Your task to perform on an android device: manage bookmarks in the chrome app Image 0: 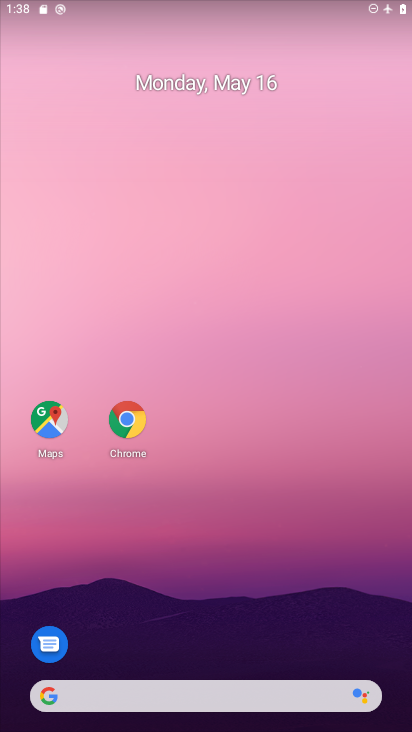
Step 0: drag from (200, 664) to (289, 60)
Your task to perform on an android device: manage bookmarks in the chrome app Image 1: 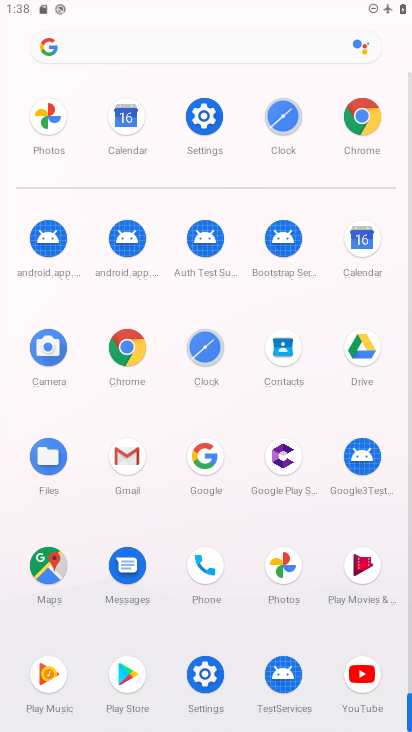
Step 1: click (124, 352)
Your task to perform on an android device: manage bookmarks in the chrome app Image 2: 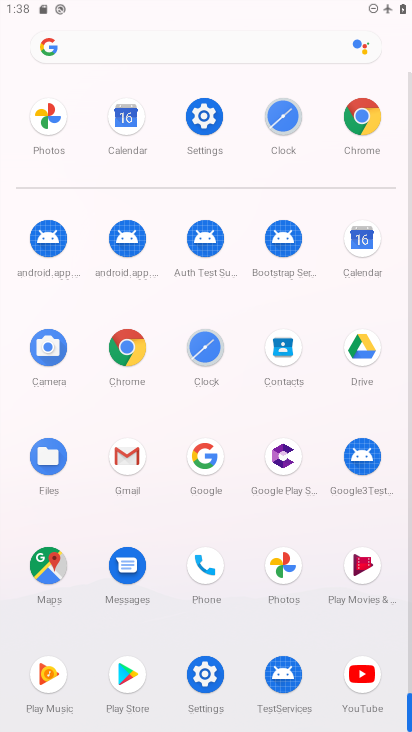
Step 2: click (124, 352)
Your task to perform on an android device: manage bookmarks in the chrome app Image 3: 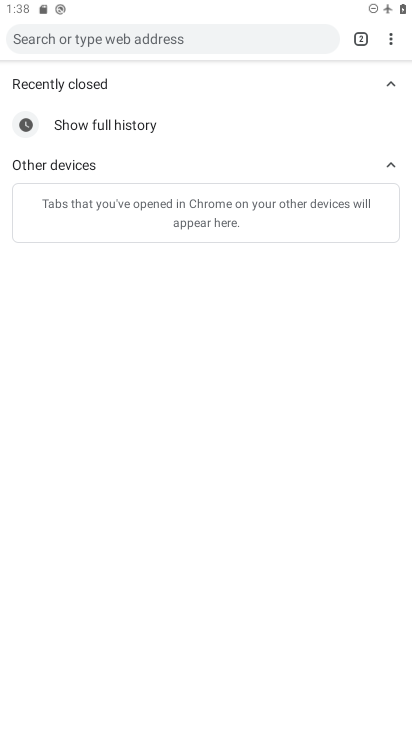
Step 3: drag from (237, 471) to (318, 112)
Your task to perform on an android device: manage bookmarks in the chrome app Image 4: 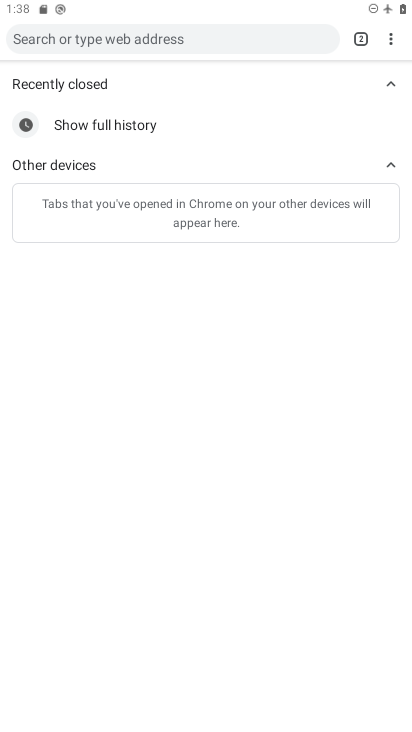
Step 4: click (398, 36)
Your task to perform on an android device: manage bookmarks in the chrome app Image 5: 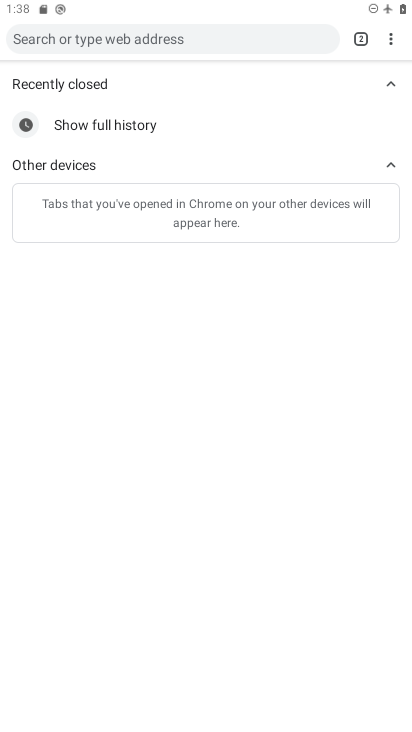
Step 5: drag from (394, 35) to (280, 148)
Your task to perform on an android device: manage bookmarks in the chrome app Image 6: 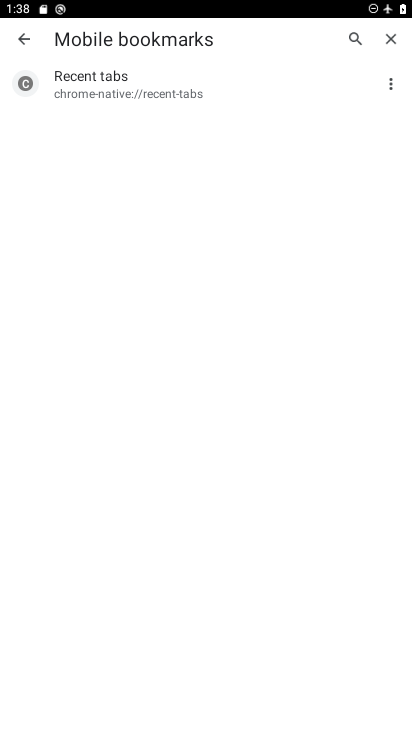
Step 6: click (392, 74)
Your task to perform on an android device: manage bookmarks in the chrome app Image 7: 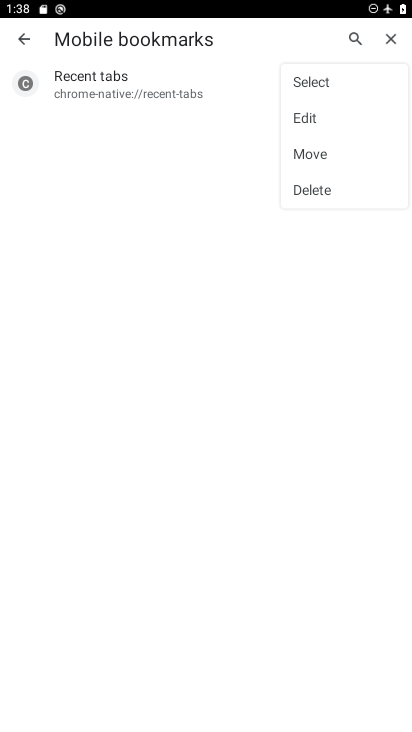
Step 7: click (319, 117)
Your task to perform on an android device: manage bookmarks in the chrome app Image 8: 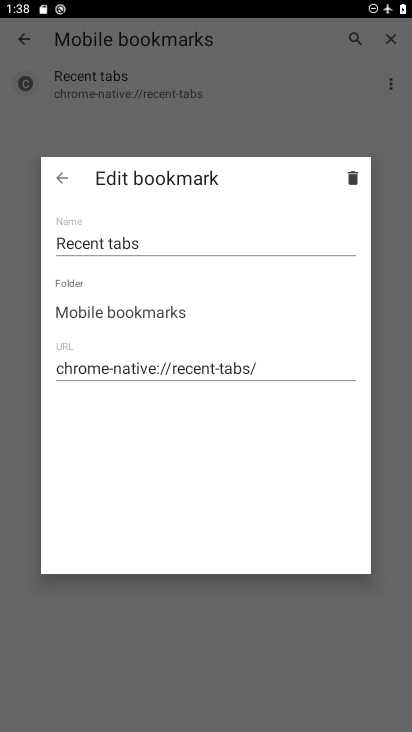
Step 8: click (93, 370)
Your task to perform on an android device: manage bookmarks in the chrome app Image 9: 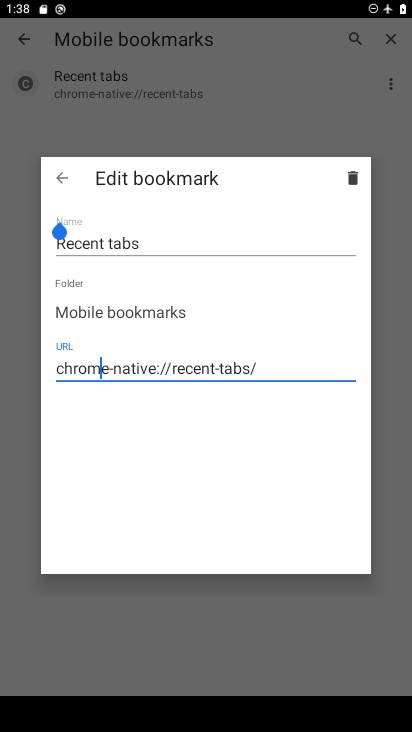
Step 9: click (309, 536)
Your task to perform on an android device: manage bookmarks in the chrome app Image 10: 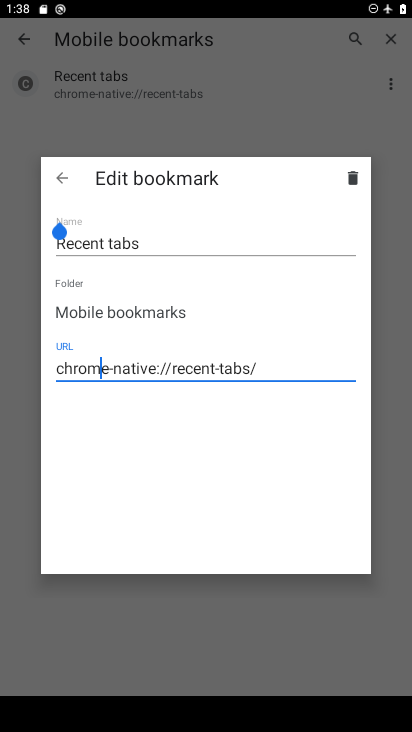
Step 10: click (406, 459)
Your task to perform on an android device: manage bookmarks in the chrome app Image 11: 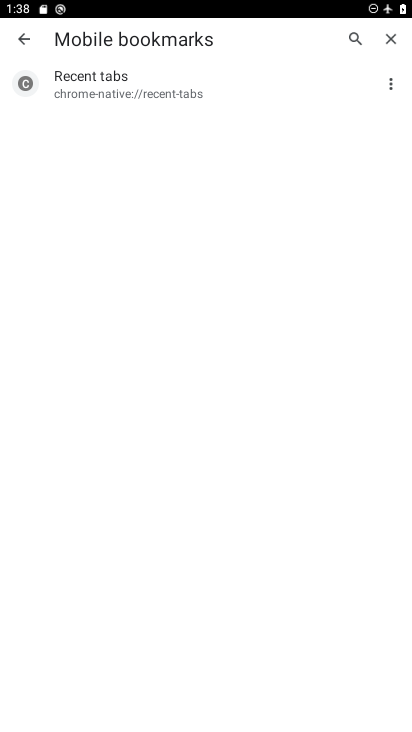
Step 11: task complete